Your task to perform on an android device: When is my next appointment? Image 0: 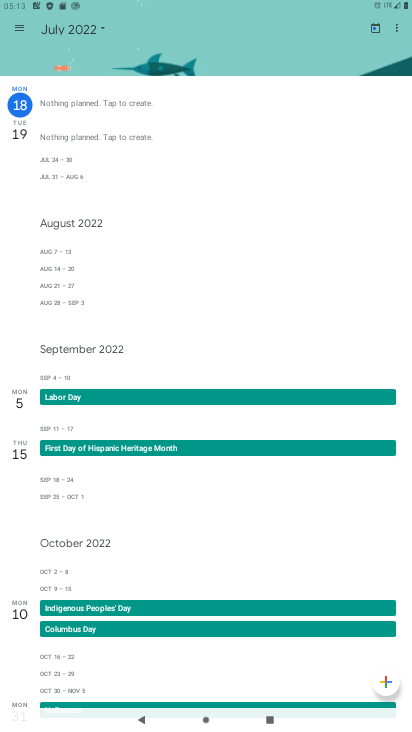
Step 0: click (10, 23)
Your task to perform on an android device: When is my next appointment? Image 1: 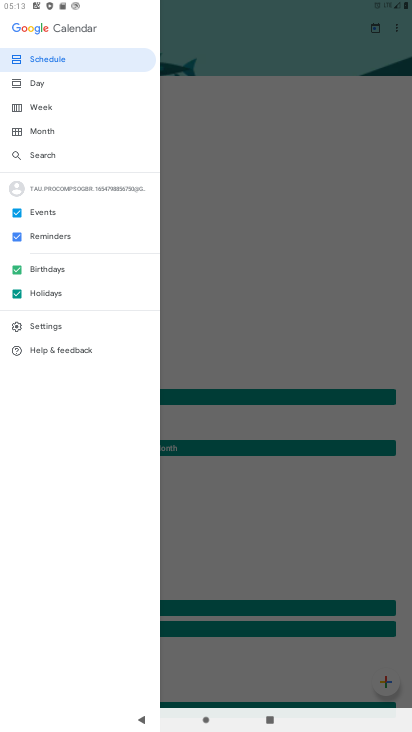
Step 1: task complete